Your task to perform on an android device: open app "Nova Launcher" (install if not already installed) Image 0: 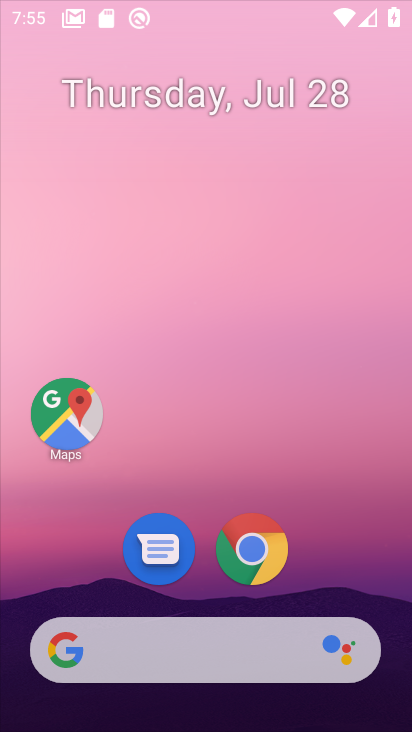
Step 0: click (189, 427)
Your task to perform on an android device: open app "Nova Launcher" (install if not already installed) Image 1: 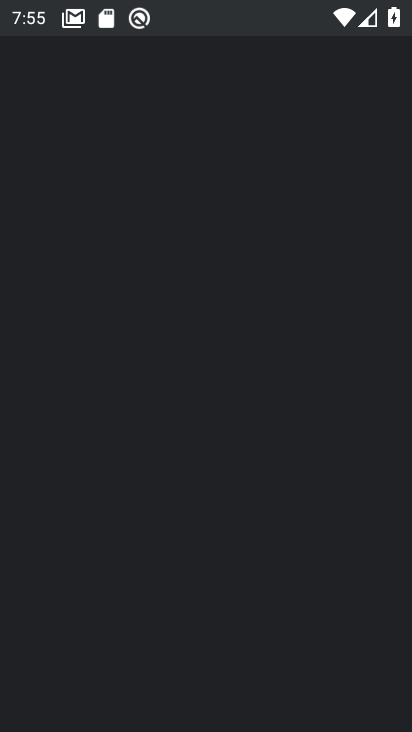
Step 1: drag from (203, 610) to (200, 167)
Your task to perform on an android device: open app "Nova Launcher" (install if not already installed) Image 2: 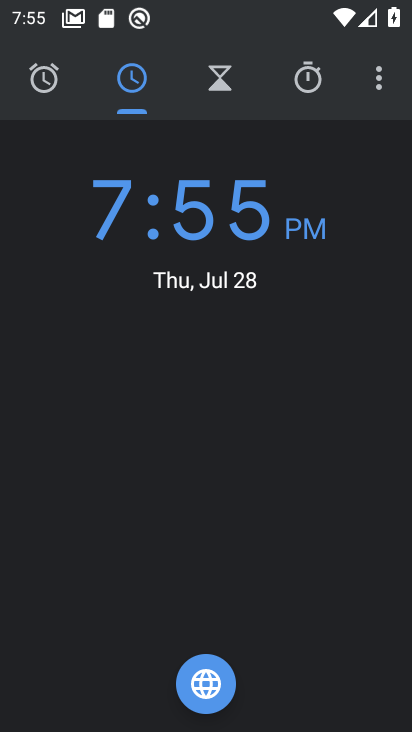
Step 2: press home button
Your task to perform on an android device: open app "Nova Launcher" (install if not already installed) Image 3: 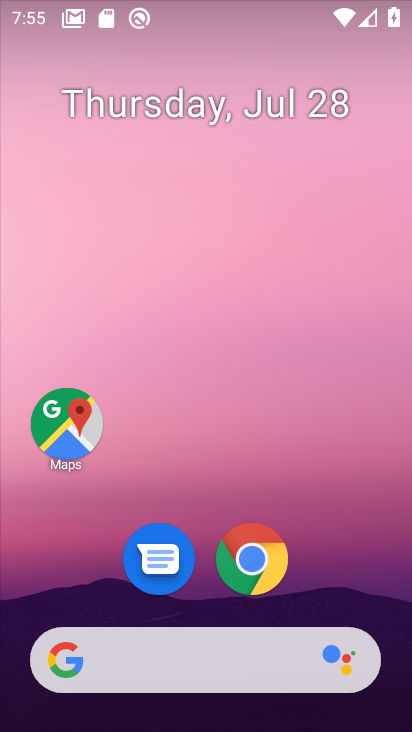
Step 3: drag from (202, 504) to (202, 157)
Your task to perform on an android device: open app "Nova Launcher" (install if not already installed) Image 4: 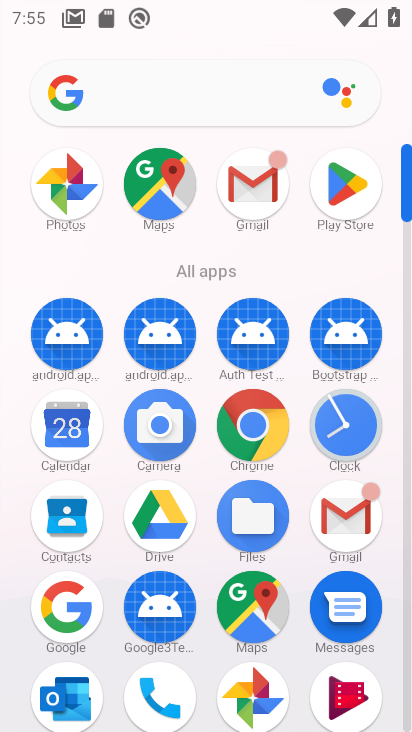
Step 4: drag from (211, 624) to (186, 143)
Your task to perform on an android device: open app "Nova Launcher" (install if not already installed) Image 5: 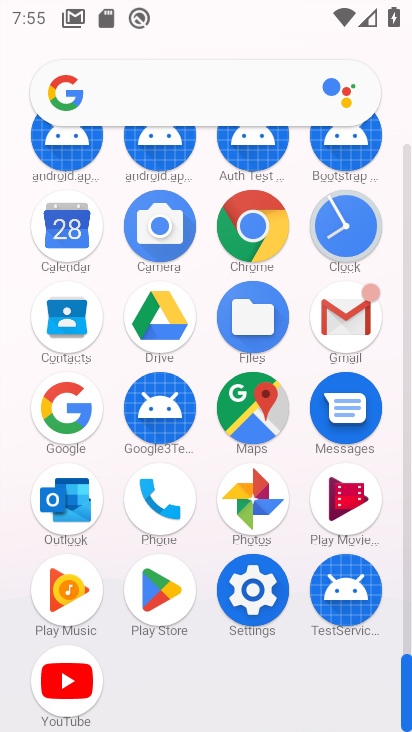
Step 5: click (163, 612)
Your task to perform on an android device: open app "Nova Launcher" (install if not already installed) Image 6: 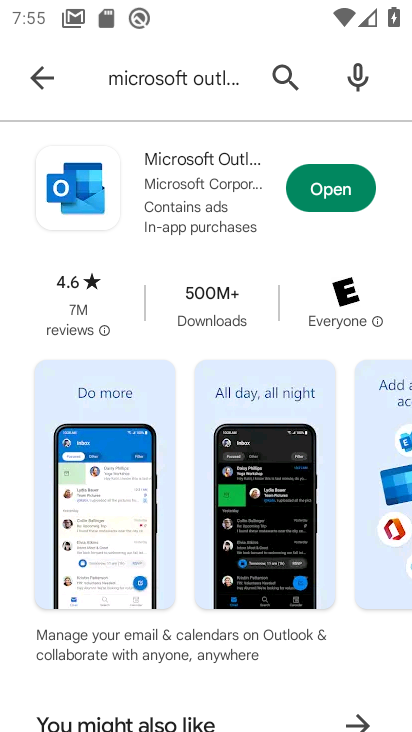
Step 6: click (39, 85)
Your task to perform on an android device: open app "Nova Launcher" (install if not already installed) Image 7: 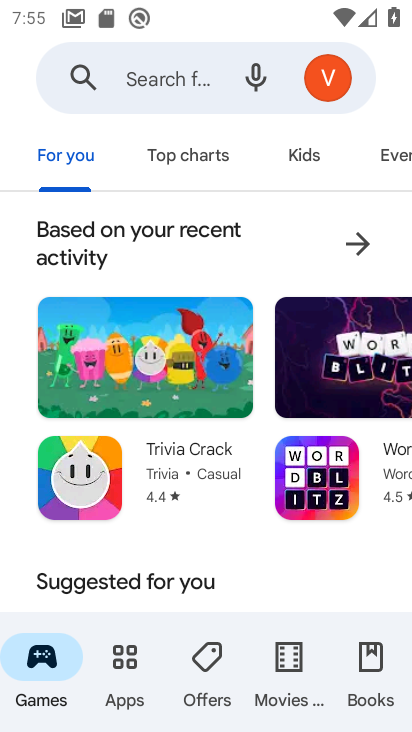
Step 7: click (172, 94)
Your task to perform on an android device: open app "Nova Launcher" (install if not already installed) Image 8: 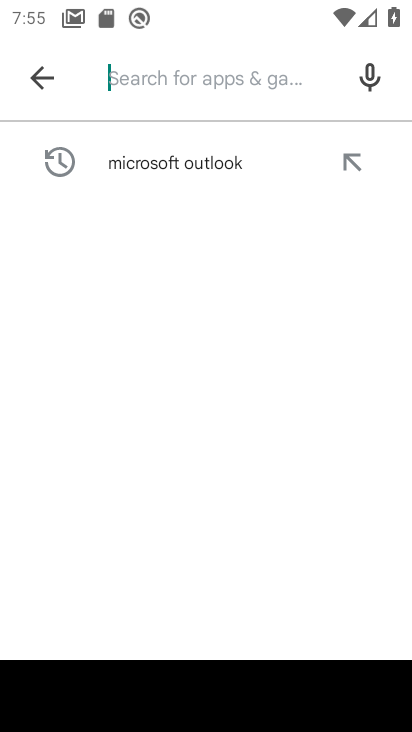
Step 8: type "Nova Launcher"
Your task to perform on an android device: open app "Nova Launcher" (install if not already installed) Image 9: 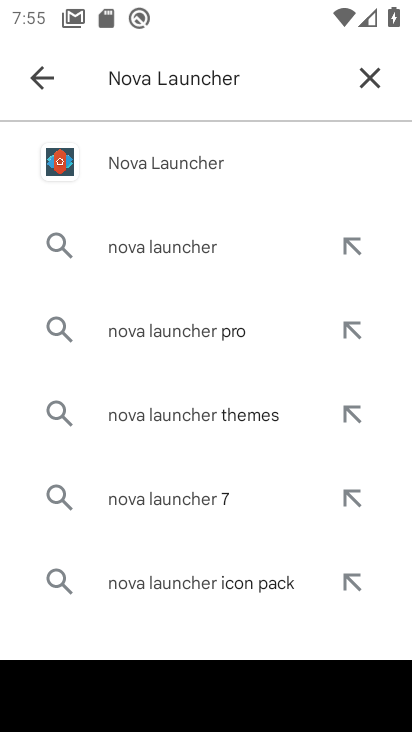
Step 9: click (166, 157)
Your task to perform on an android device: open app "Nova Launcher" (install if not already installed) Image 10: 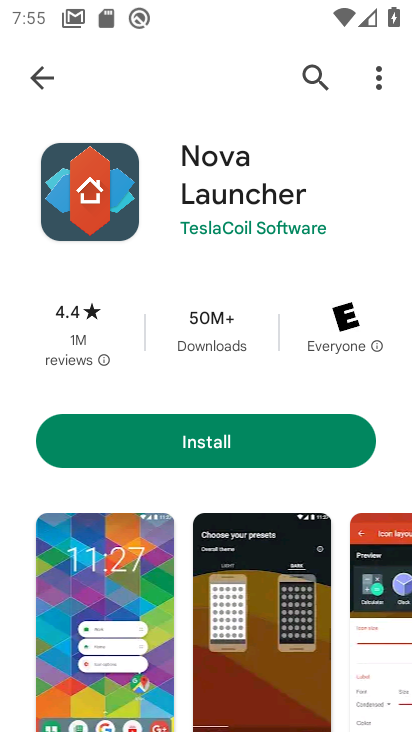
Step 10: click (209, 441)
Your task to perform on an android device: open app "Nova Launcher" (install if not already installed) Image 11: 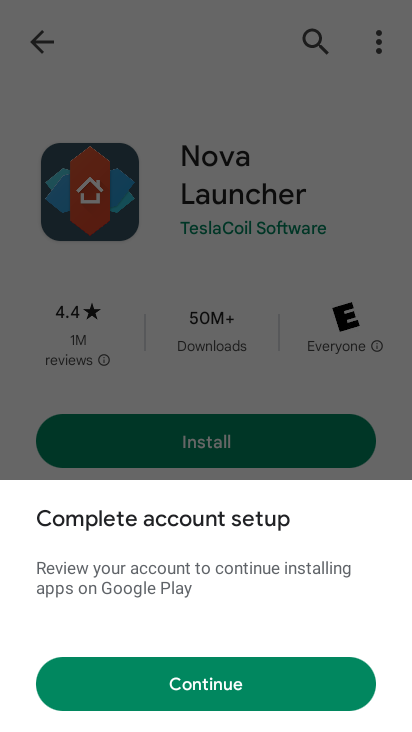
Step 11: click (143, 692)
Your task to perform on an android device: open app "Nova Launcher" (install if not already installed) Image 12: 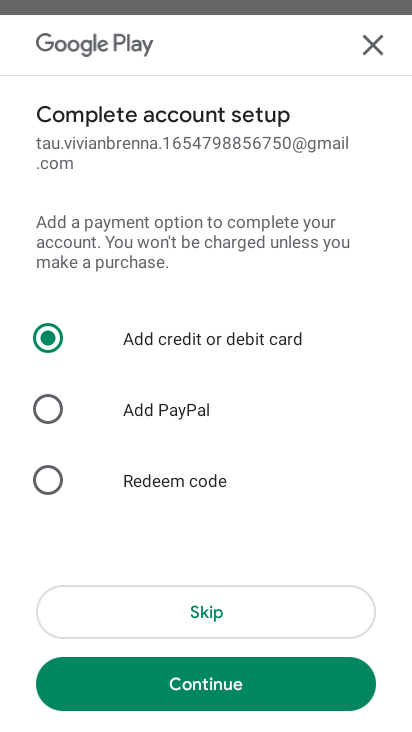
Step 12: click (168, 607)
Your task to perform on an android device: open app "Nova Launcher" (install if not already installed) Image 13: 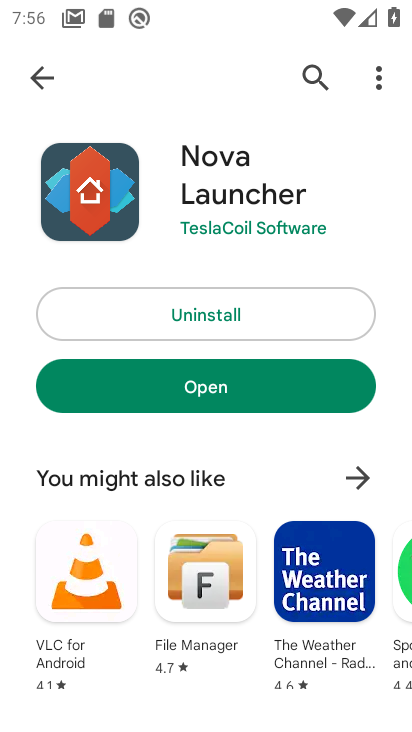
Step 13: click (217, 377)
Your task to perform on an android device: open app "Nova Launcher" (install if not already installed) Image 14: 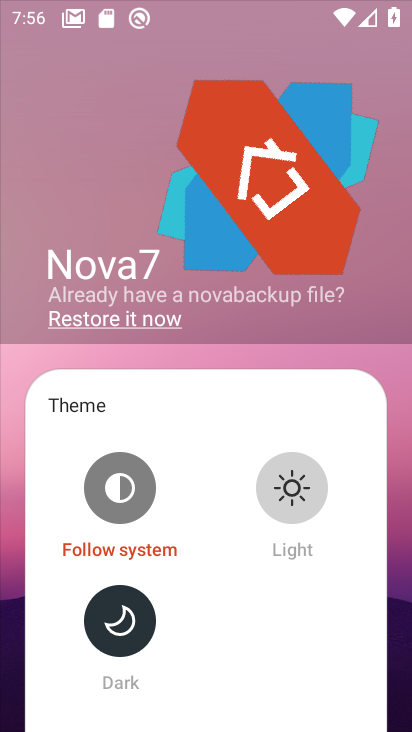
Step 14: task complete